Your task to perform on an android device: When is my next appointment? Image 0: 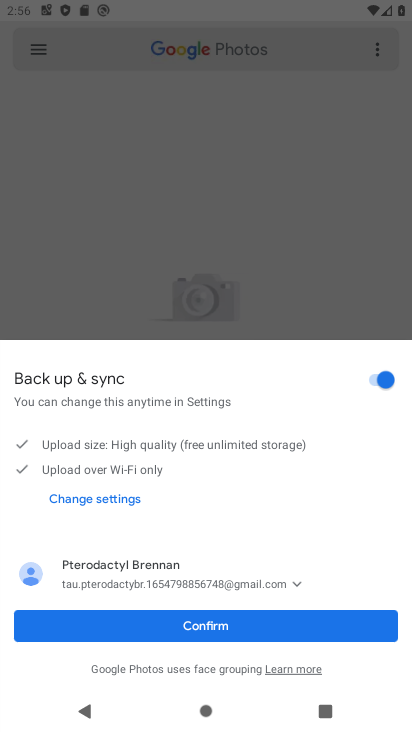
Step 0: press home button
Your task to perform on an android device: When is my next appointment? Image 1: 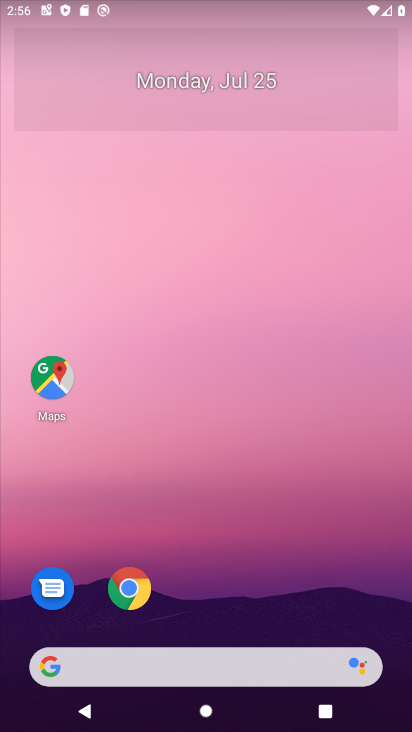
Step 1: drag from (296, 582) to (249, 0)
Your task to perform on an android device: When is my next appointment? Image 2: 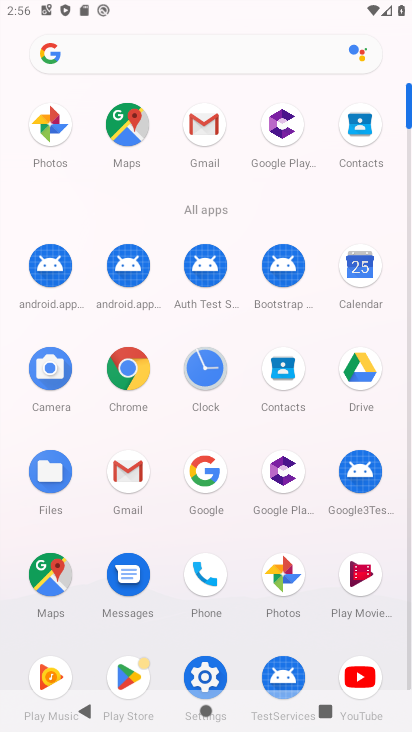
Step 2: click (357, 264)
Your task to perform on an android device: When is my next appointment? Image 3: 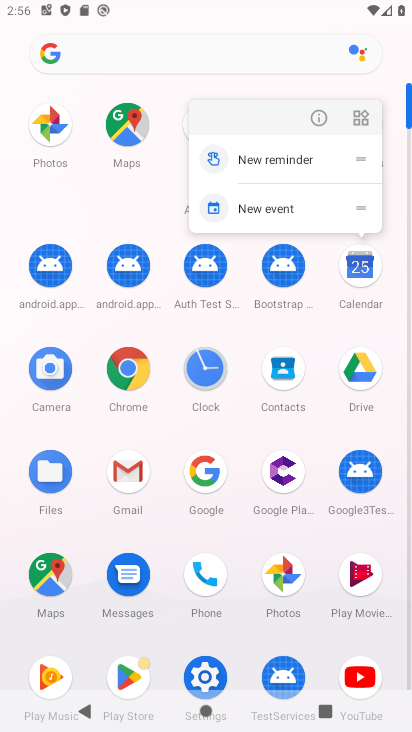
Step 3: click (357, 264)
Your task to perform on an android device: When is my next appointment? Image 4: 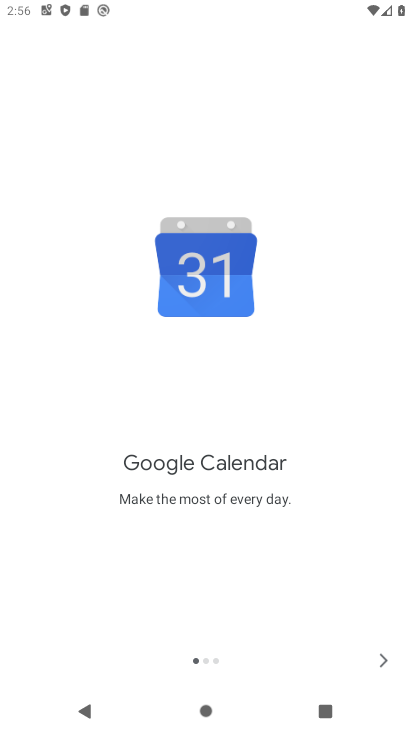
Step 4: click (388, 656)
Your task to perform on an android device: When is my next appointment? Image 5: 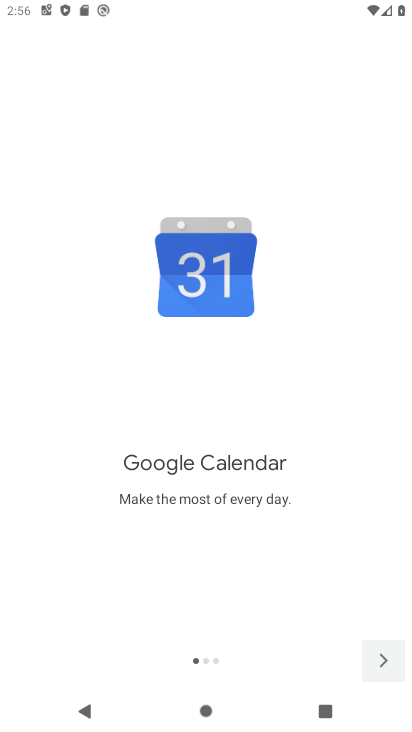
Step 5: click (389, 655)
Your task to perform on an android device: When is my next appointment? Image 6: 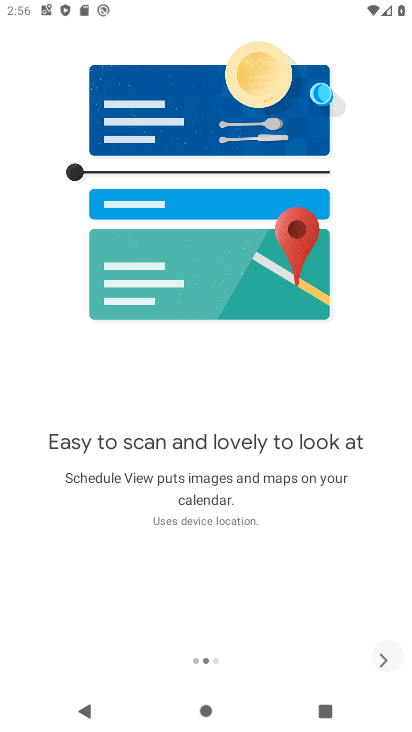
Step 6: click (389, 655)
Your task to perform on an android device: When is my next appointment? Image 7: 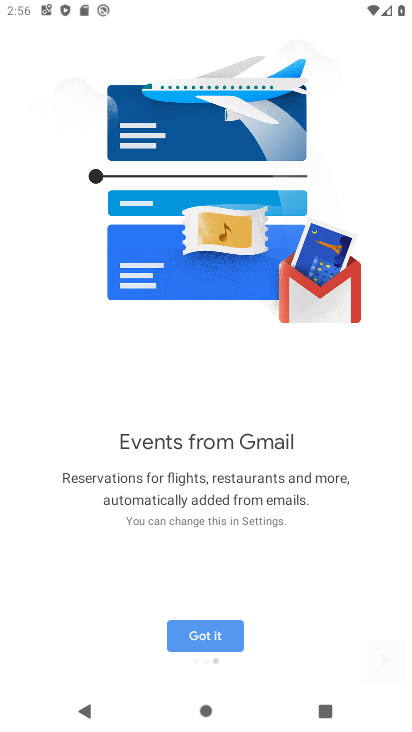
Step 7: click (389, 655)
Your task to perform on an android device: When is my next appointment? Image 8: 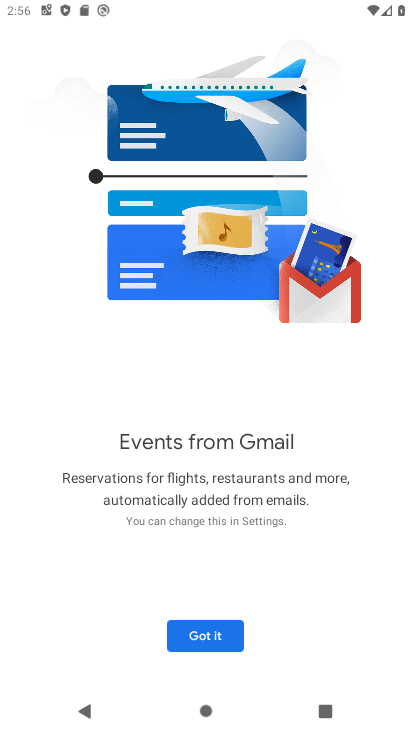
Step 8: click (389, 655)
Your task to perform on an android device: When is my next appointment? Image 9: 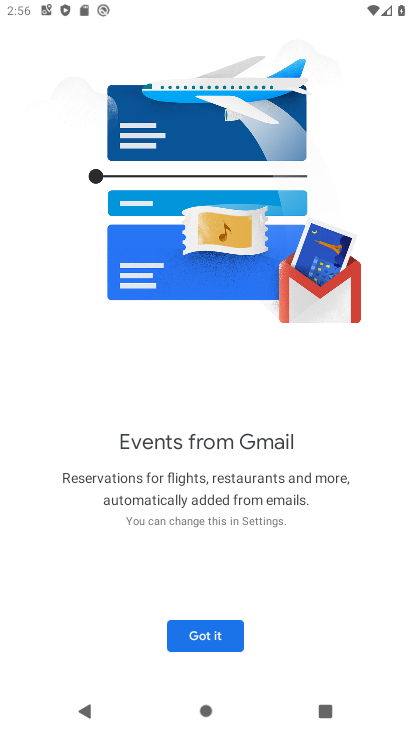
Step 9: click (208, 633)
Your task to perform on an android device: When is my next appointment? Image 10: 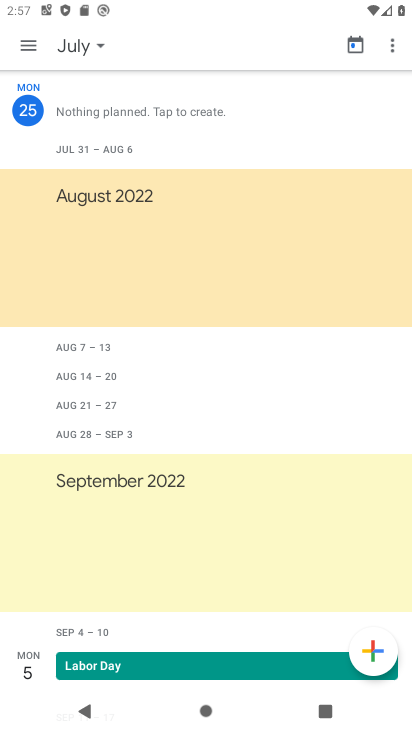
Step 10: task complete